Your task to perform on an android device: check storage Image 0: 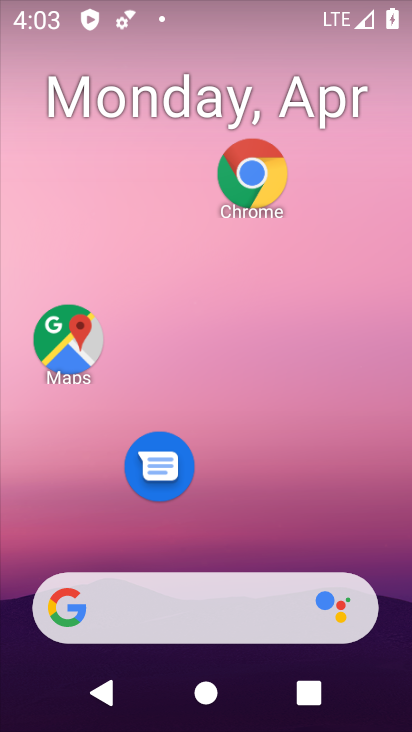
Step 0: drag from (392, 568) to (321, 215)
Your task to perform on an android device: check storage Image 1: 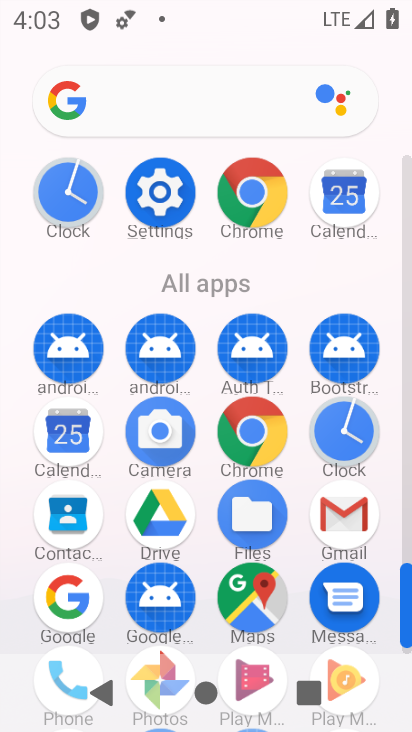
Step 1: drag from (387, 565) to (373, 353)
Your task to perform on an android device: check storage Image 2: 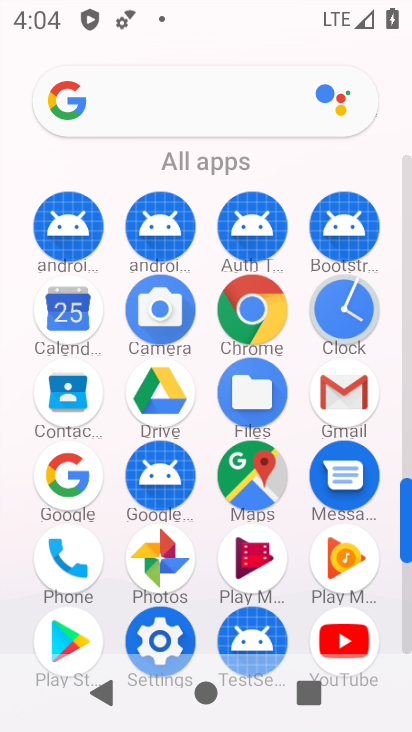
Step 2: click (181, 642)
Your task to perform on an android device: check storage Image 3: 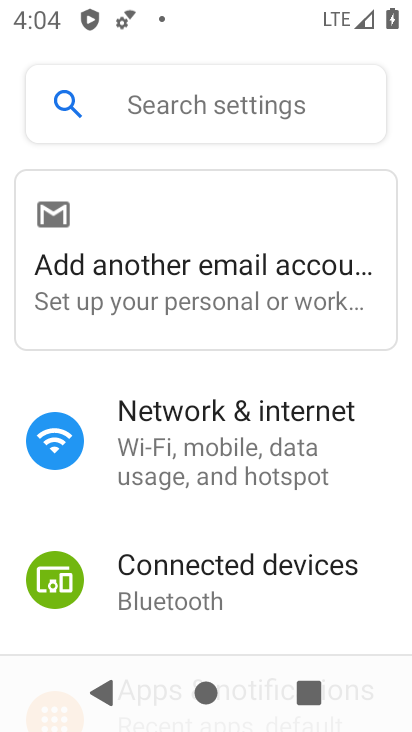
Step 3: drag from (241, 615) to (202, 232)
Your task to perform on an android device: check storage Image 4: 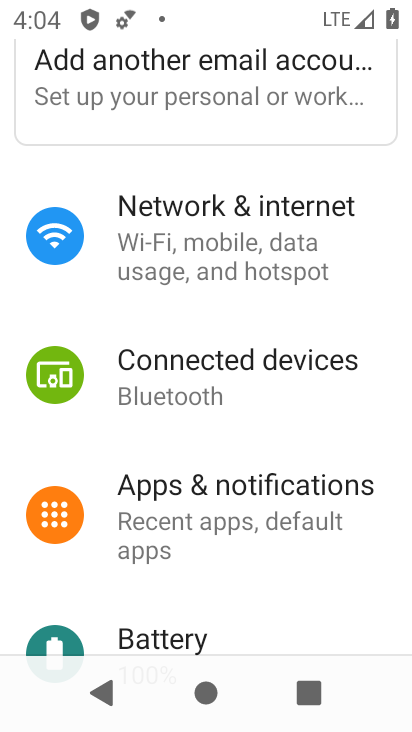
Step 4: drag from (351, 566) to (291, 295)
Your task to perform on an android device: check storage Image 5: 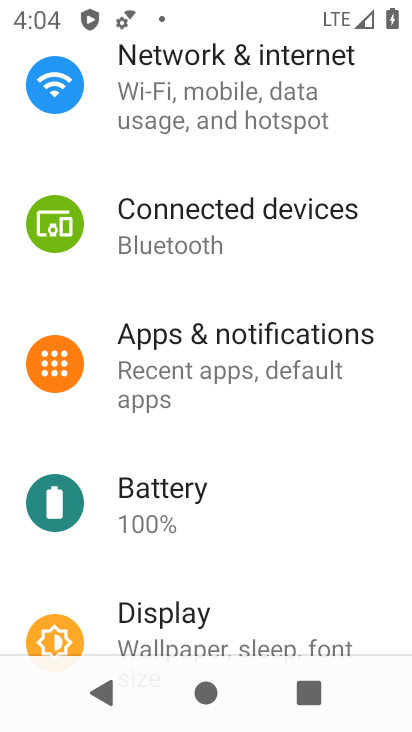
Step 5: drag from (352, 482) to (300, 193)
Your task to perform on an android device: check storage Image 6: 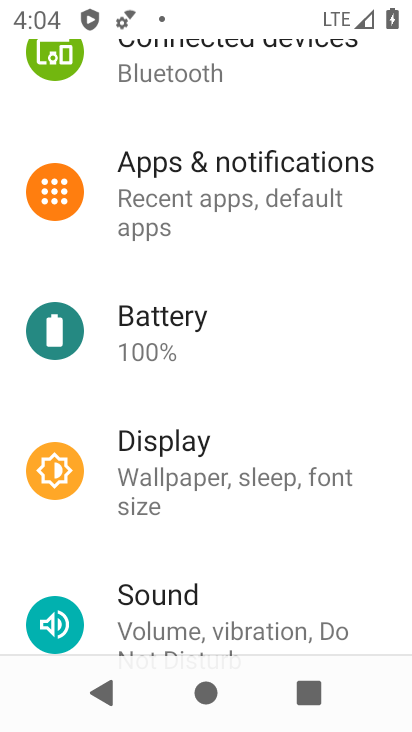
Step 6: drag from (345, 576) to (277, 174)
Your task to perform on an android device: check storage Image 7: 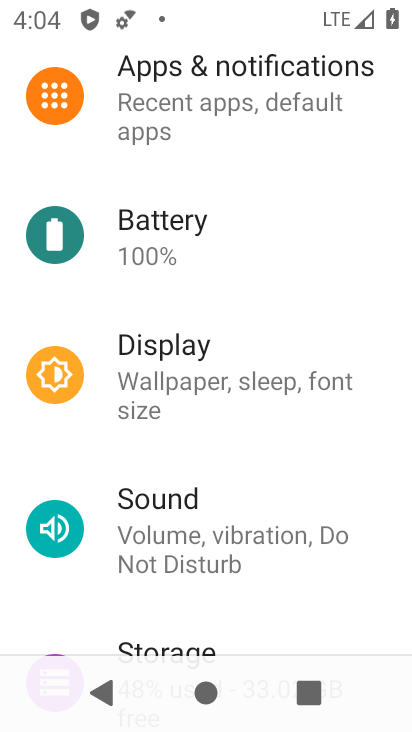
Step 7: click (254, 639)
Your task to perform on an android device: check storage Image 8: 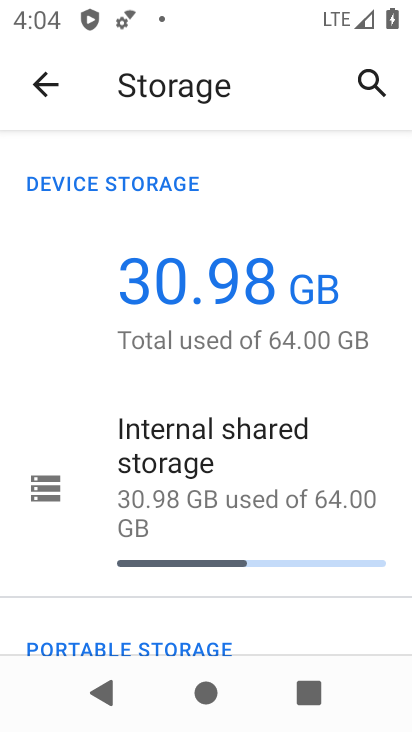
Step 8: task complete